Your task to perform on an android device: Add "usb-c to usb-b" to the cart on target.com Image 0: 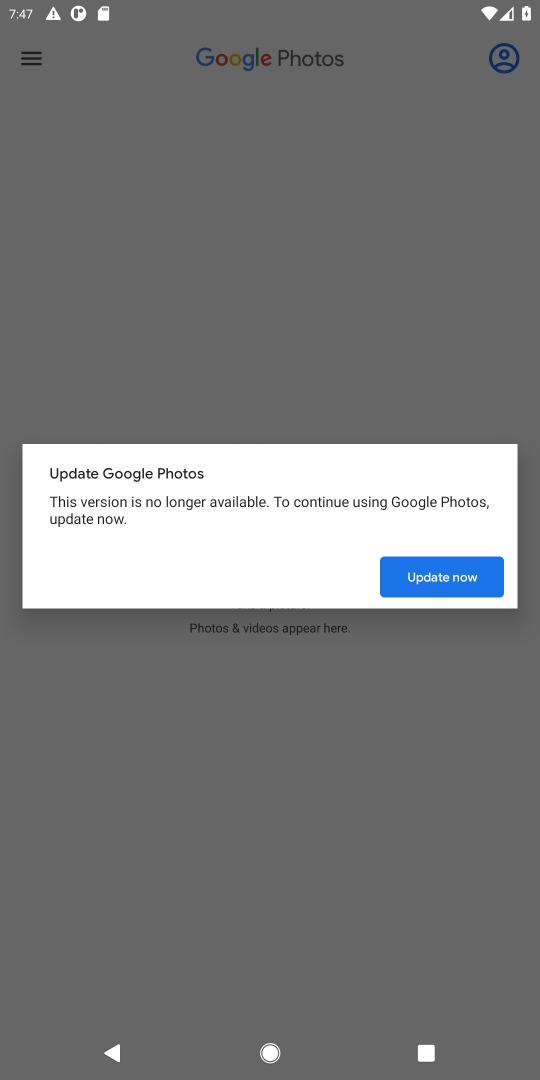
Step 0: press home button
Your task to perform on an android device: Add "usb-c to usb-b" to the cart on target.com Image 1: 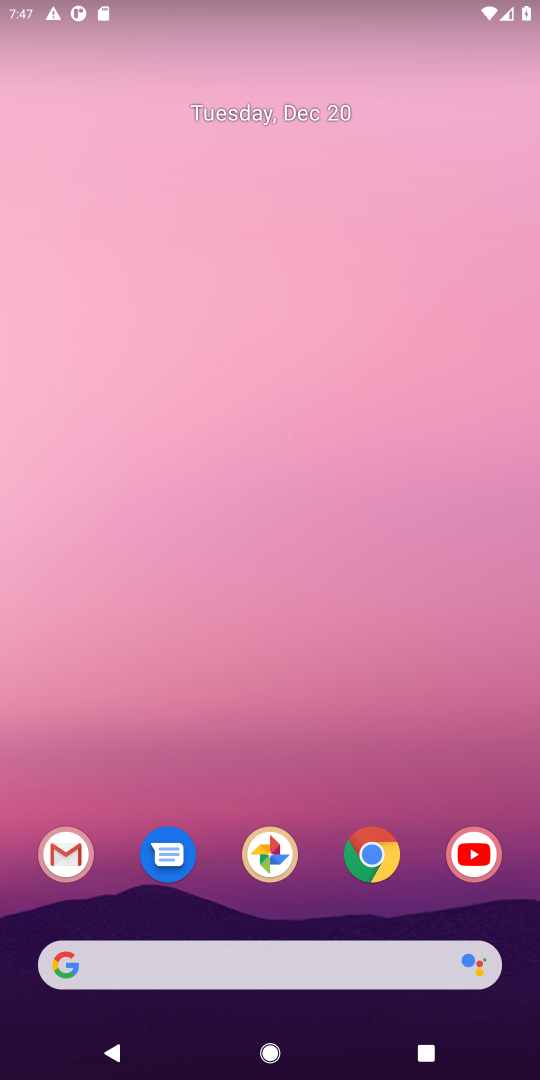
Step 1: click (374, 857)
Your task to perform on an android device: Add "usb-c to usb-b" to the cart on target.com Image 2: 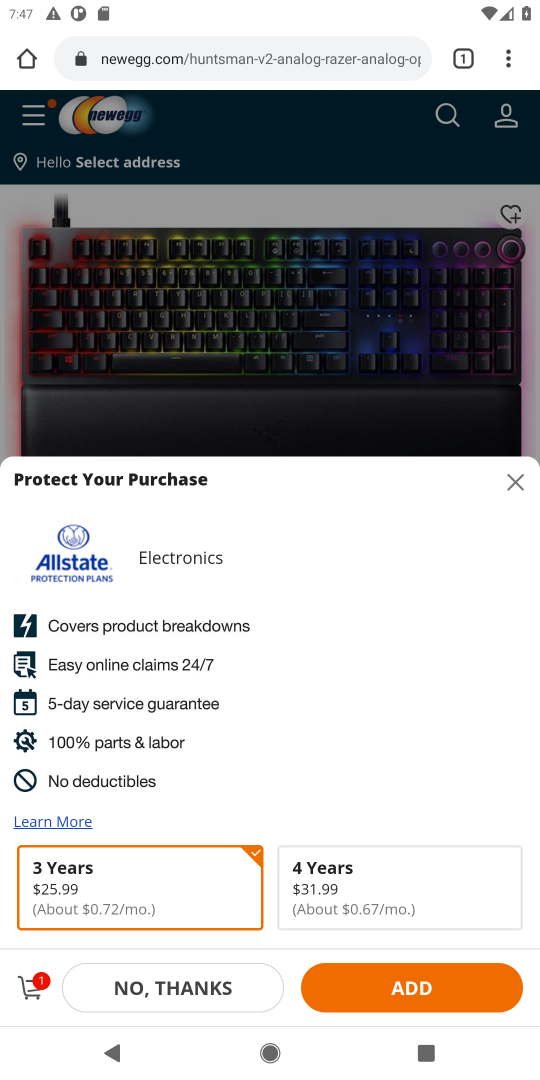
Step 2: click (220, 59)
Your task to perform on an android device: Add "usb-c to usb-b" to the cart on target.com Image 3: 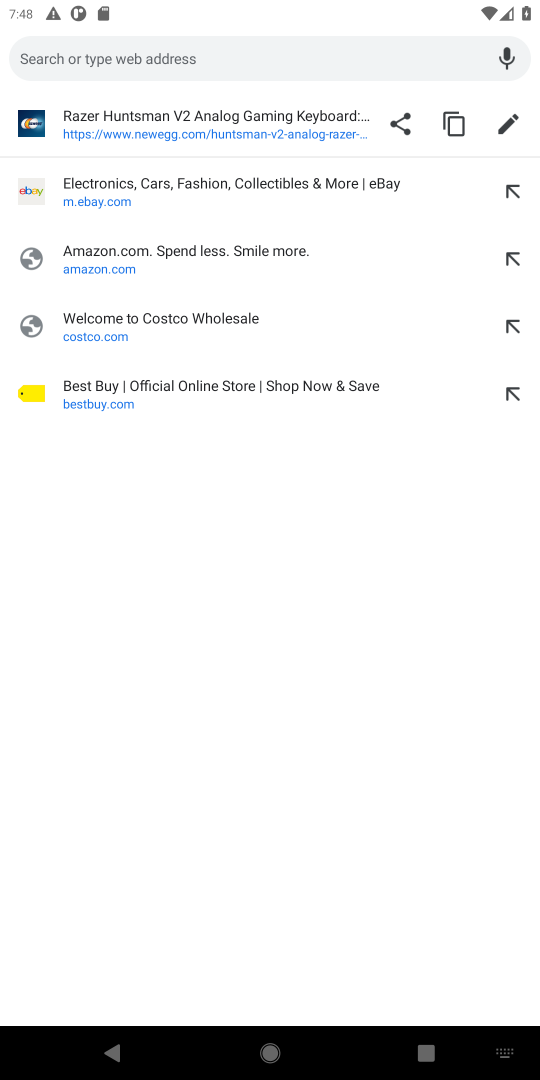
Step 3: type "target.com"
Your task to perform on an android device: Add "usb-c to usb-b" to the cart on target.com Image 4: 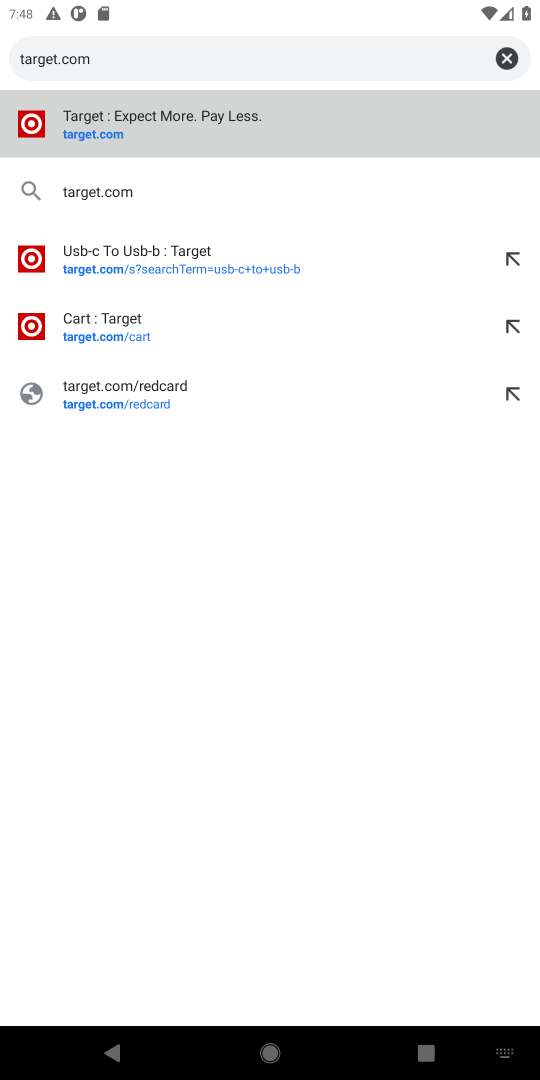
Step 4: click (80, 129)
Your task to perform on an android device: Add "usb-c to usb-b" to the cart on target.com Image 5: 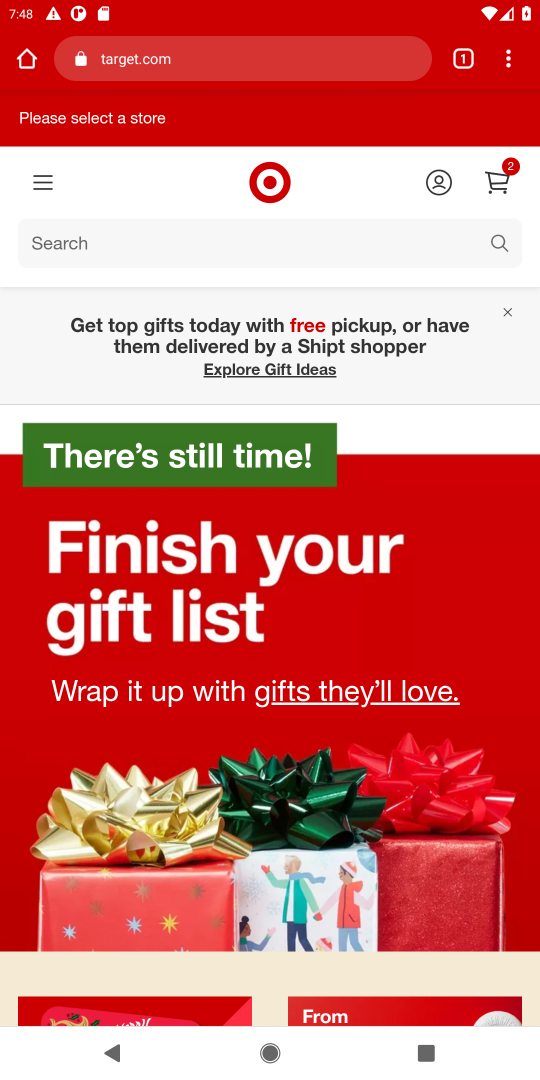
Step 5: click (78, 248)
Your task to perform on an android device: Add "usb-c to usb-b" to the cart on target.com Image 6: 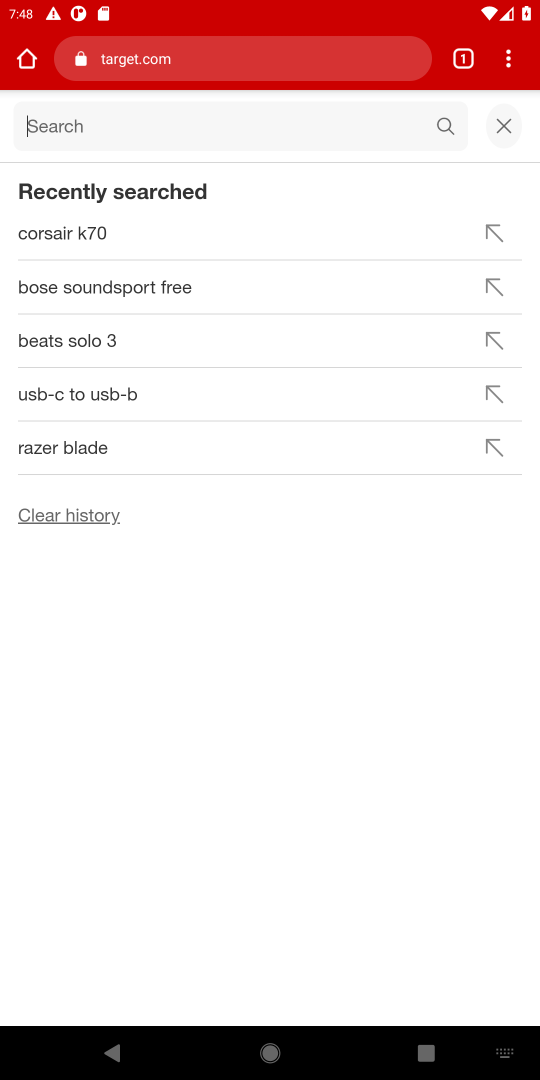
Step 6: type "usb-c to usb-b"
Your task to perform on an android device: Add "usb-c to usb-b" to the cart on target.com Image 7: 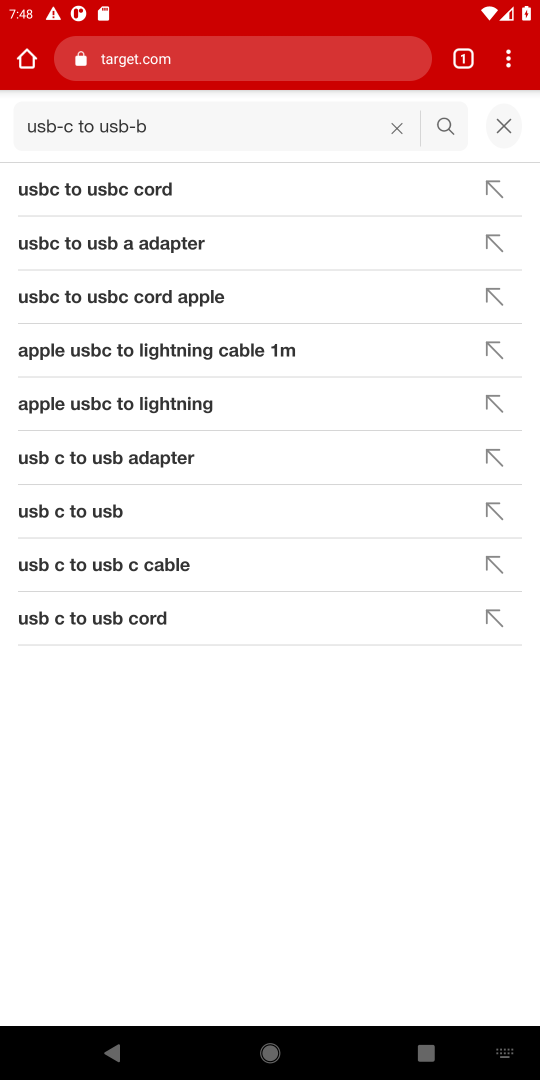
Step 7: click (450, 119)
Your task to perform on an android device: Add "usb-c to usb-b" to the cart on target.com Image 8: 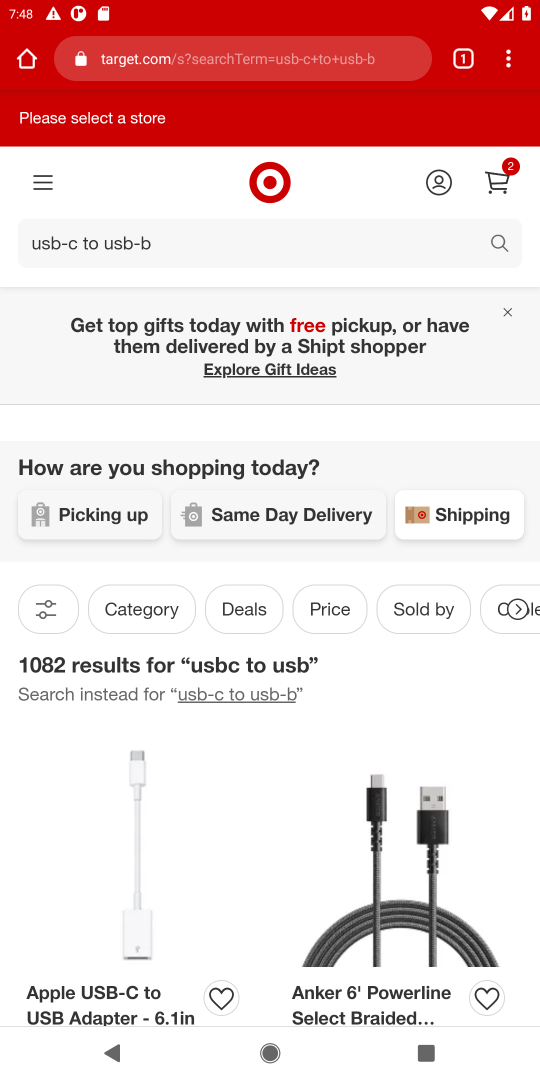
Step 8: drag from (186, 807) to (188, 553)
Your task to perform on an android device: Add "usb-c to usb-b" to the cart on target.com Image 9: 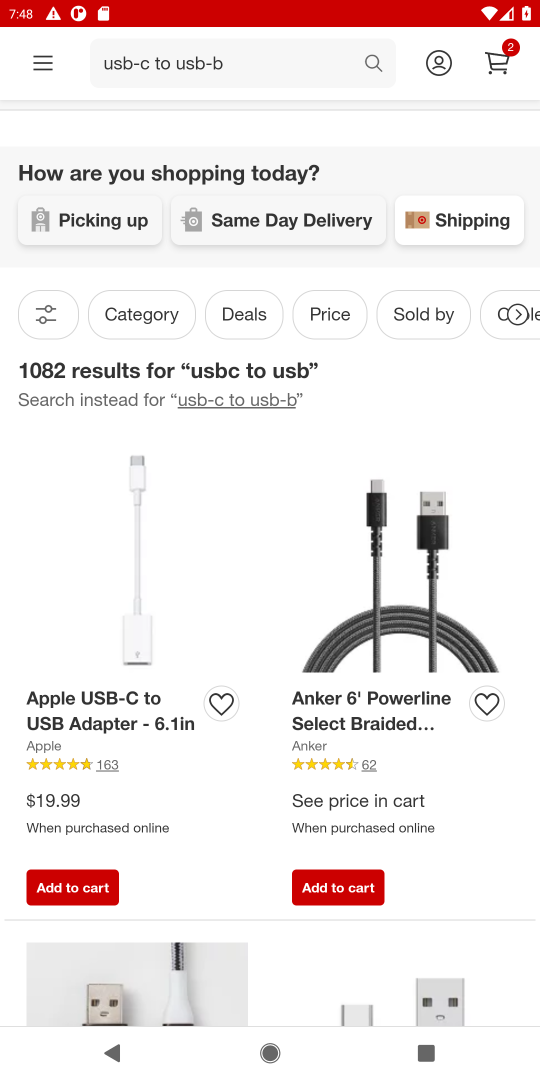
Step 9: drag from (220, 852) to (183, 473)
Your task to perform on an android device: Add "usb-c to usb-b" to the cart on target.com Image 10: 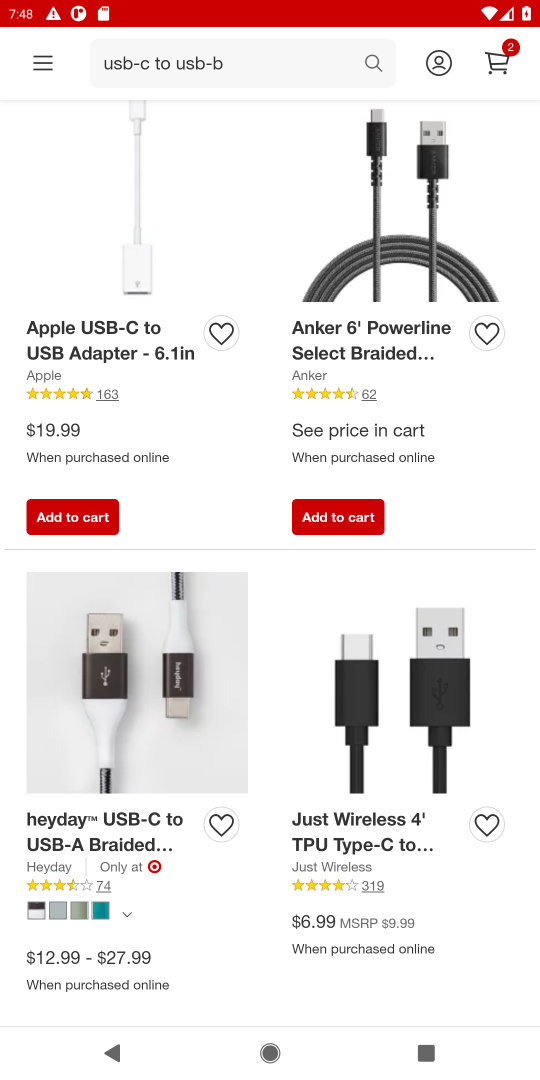
Step 10: drag from (284, 892) to (237, 449)
Your task to perform on an android device: Add "usb-c to usb-b" to the cart on target.com Image 11: 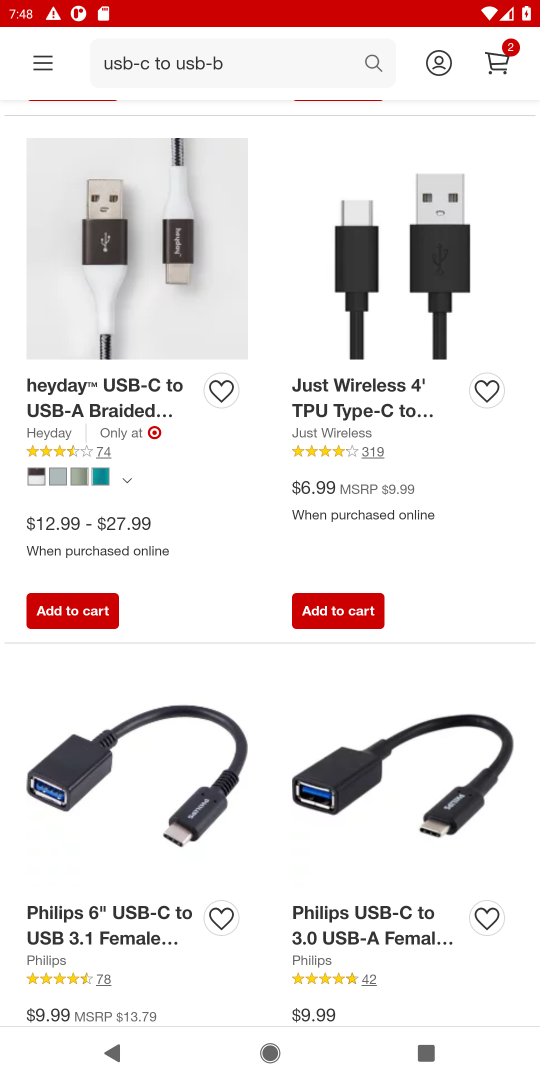
Step 11: drag from (247, 780) to (210, 478)
Your task to perform on an android device: Add "usb-c to usb-b" to the cart on target.com Image 12: 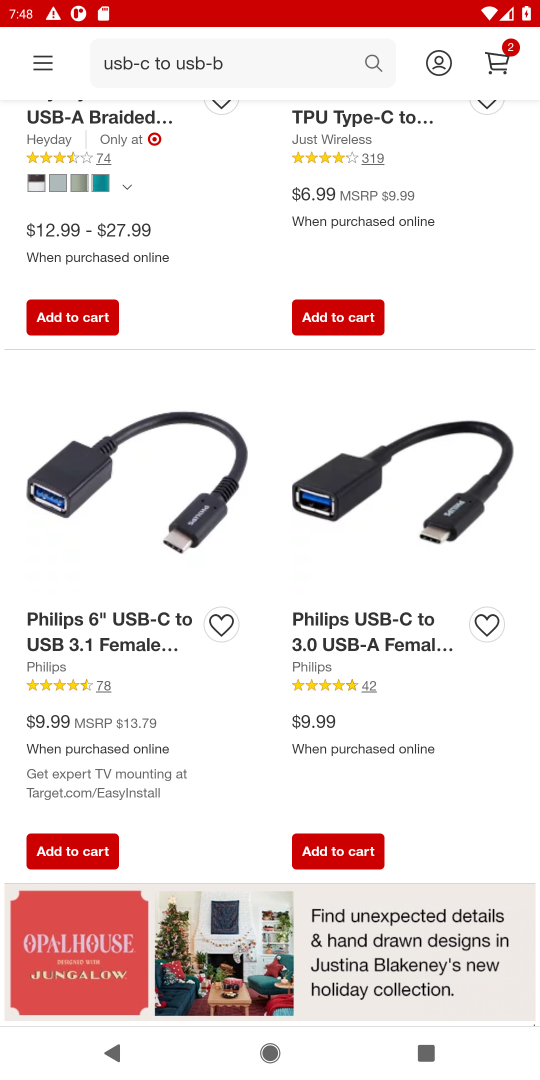
Step 12: drag from (249, 778) to (190, 366)
Your task to perform on an android device: Add "usb-c to usb-b" to the cart on target.com Image 13: 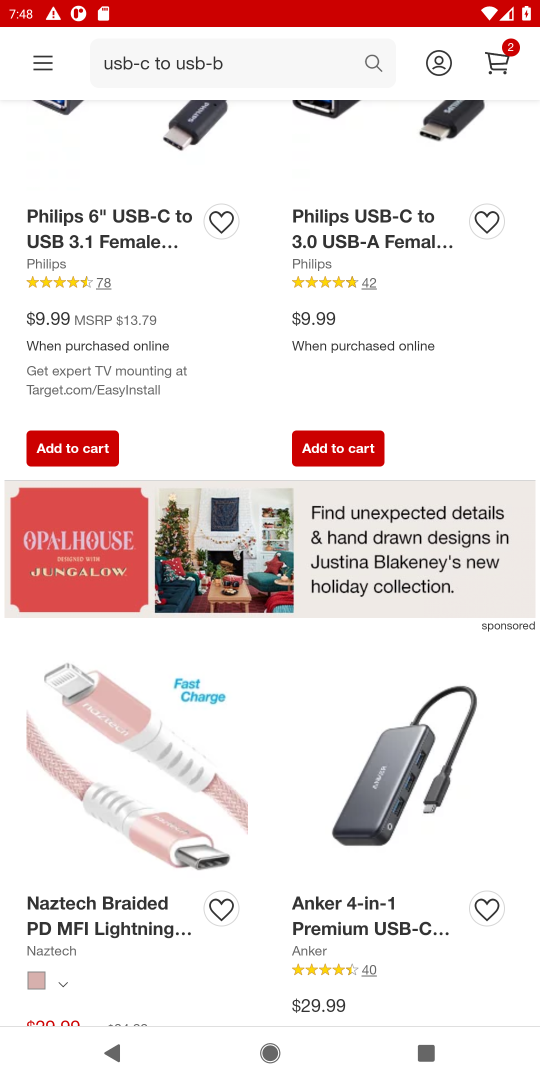
Step 13: drag from (186, 837) to (177, 520)
Your task to perform on an android device: Add "usb-c to usb-b" to the cart on target.com Image 14: 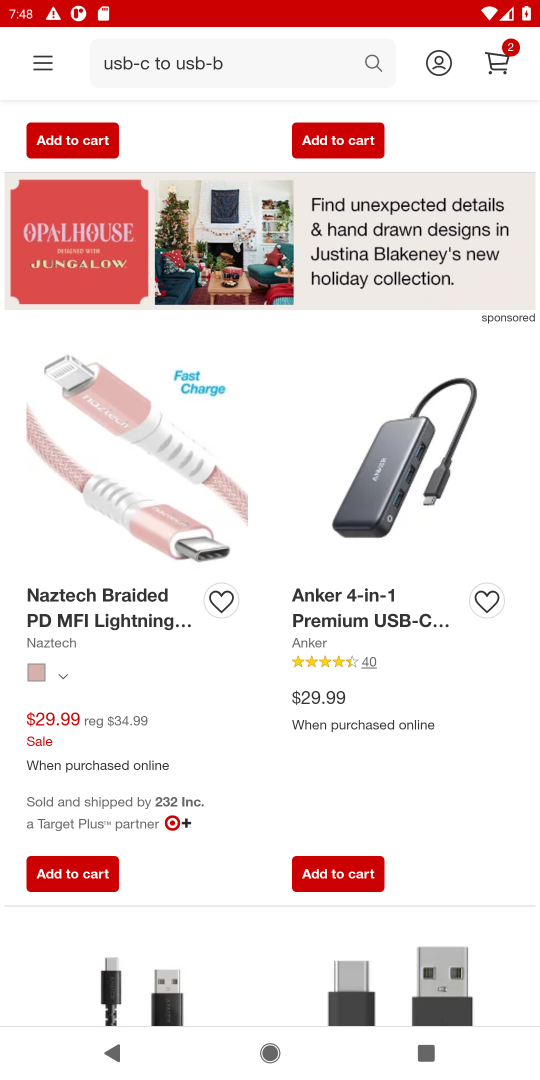
Step 14: click (337, 625)
Your task to perform on an android device: Add "usb-c to usb-b" to the cart on target.com Image 15: 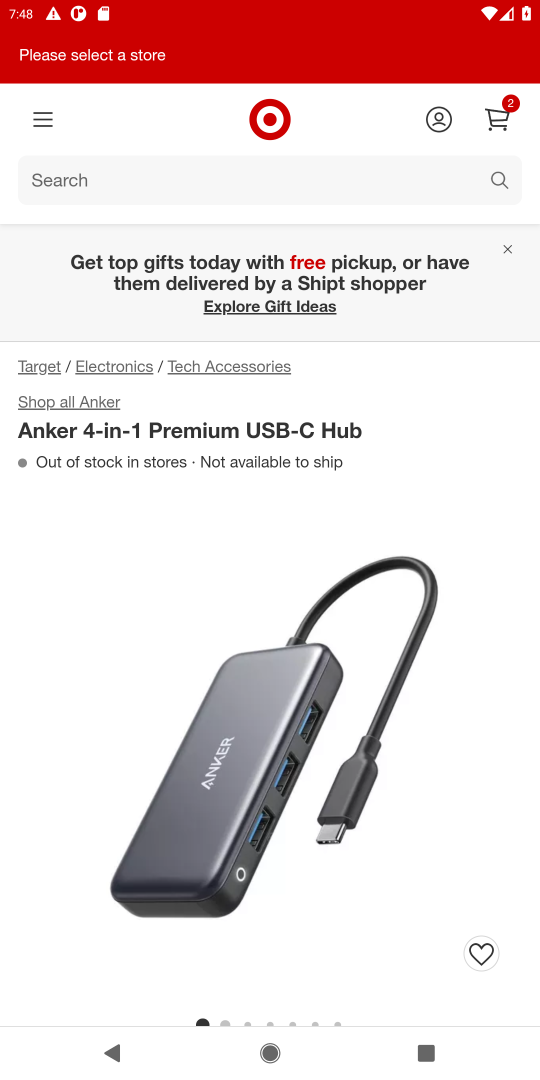
Step 15: press back button
Your task to perform on an android device: Add "usb-c to usb-b" to the cart on target.com Image 16: 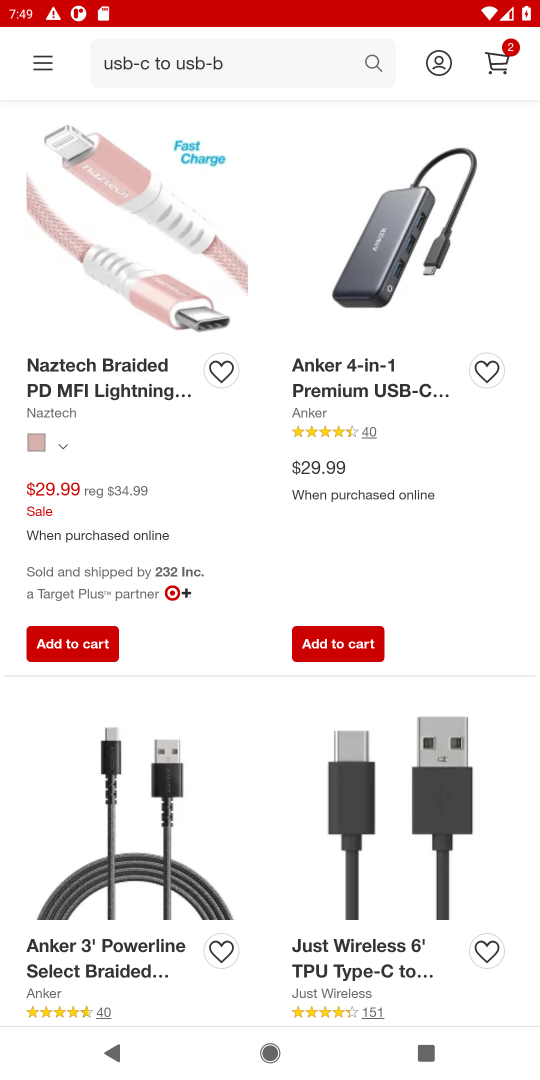
Step 16: drag from (287, 424) to (239, 804)
Your task to perform on an android device: Add "usb-c to usb-b" to the cart on target.com Image 17: 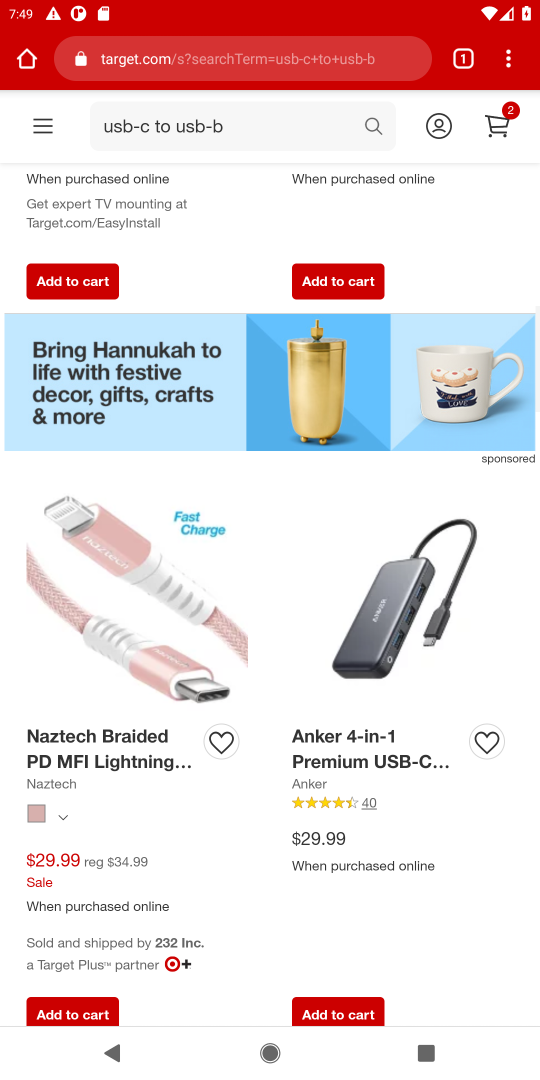
Step 17: drag from (251, 473) to (233, 812)
Your task to perform on an android device: Add "usb-c to usb-b" to the cart on target.com Image 18: 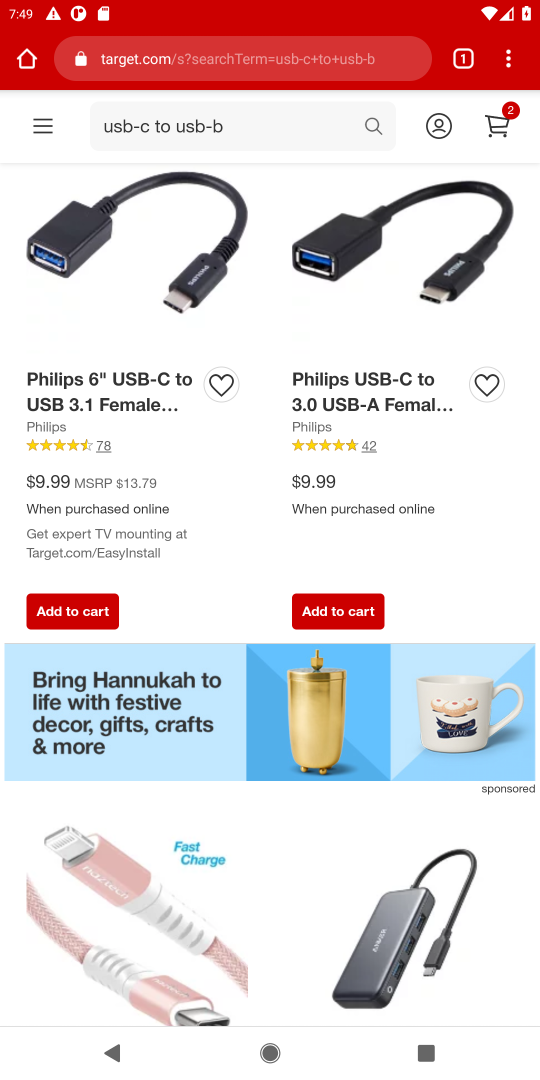
Step 18: drag from (206, 463) to (185, 911)
Your task to perform on an android device: Add "usb-c to usb-b" to the cart on target.com Image 19: 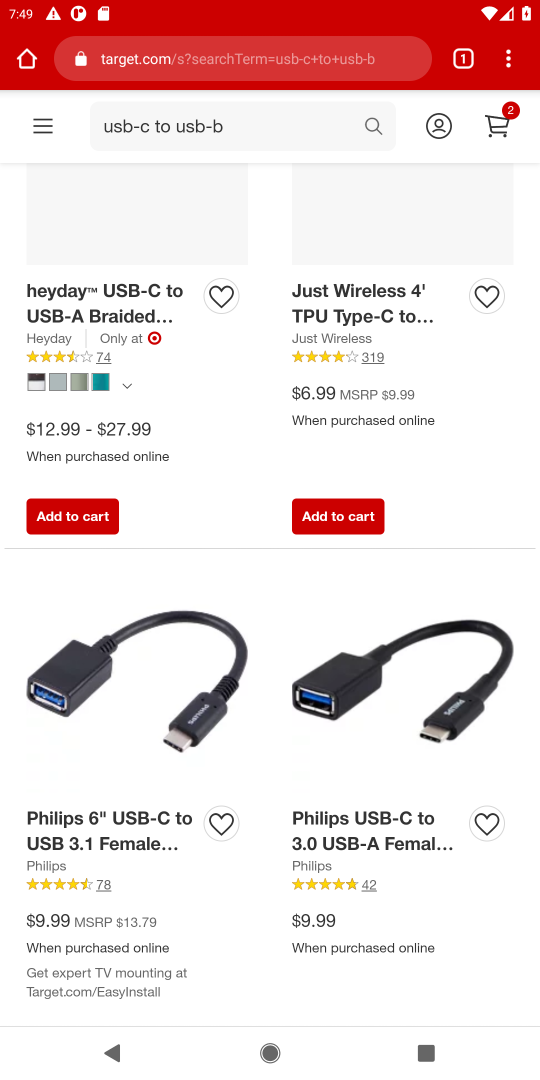
Step 19: drag from (206, 535) to (191, 888)
Your task to perform on an android device: Add "usb-c to usb-b" to the cart on target.com Image 20: 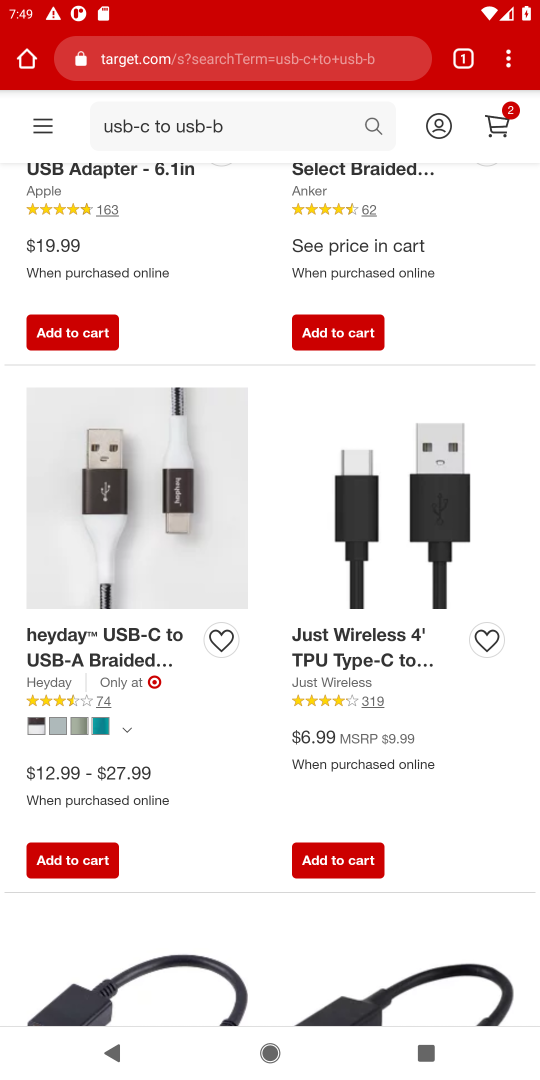
Step 20: click (349, 659)
Your task to perform on an android device: Add "usb-c to usb-b" to the cart on target.com Image 21: 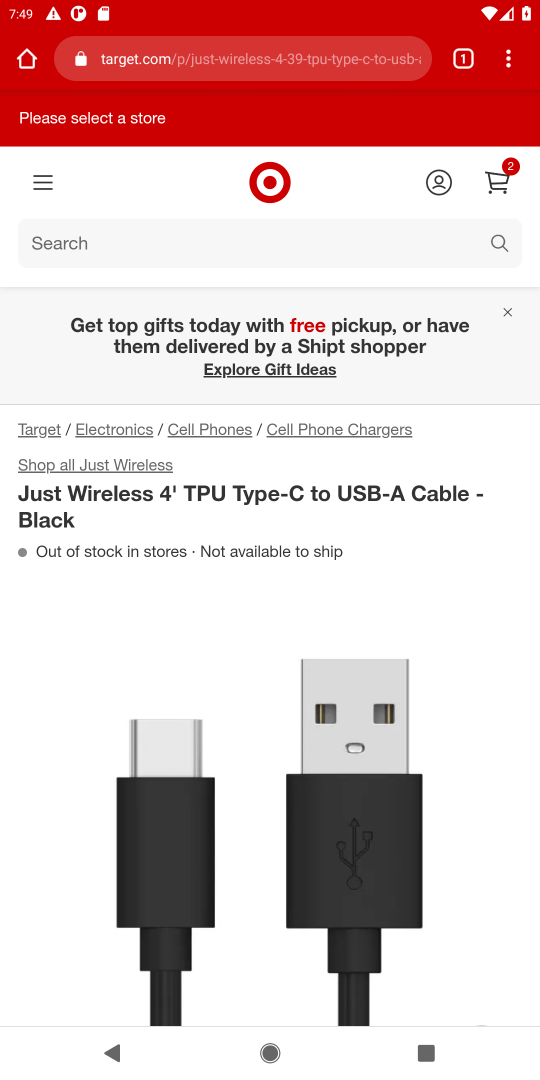
Step 21: task complete